Your task to perform on an android device: turn off wifi Image 0: 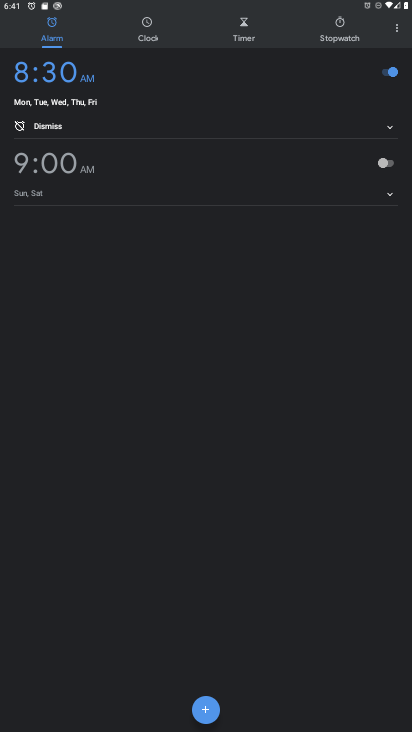
Step 0: press home button
Your task to perform on an android device: turn off wifi Image 1: 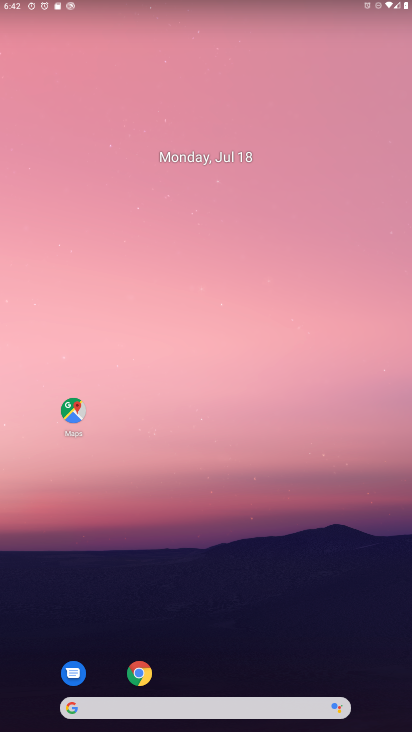
Step 1: drag from (230, 619) to (217, 241)
Your task to perform on an android device: turn off wifi Image 2: 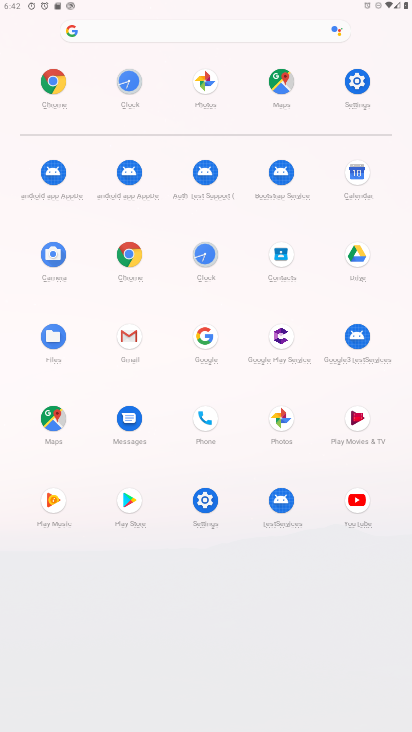
Step 2: click (207, 497)
Your task to perform on an android device: turn off wifi Image 3: 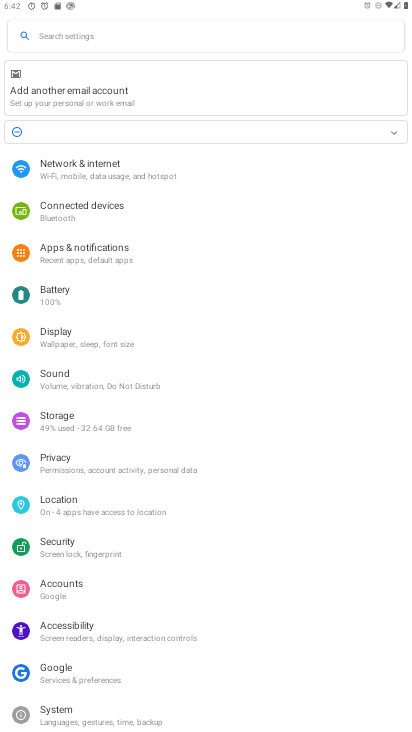
Step 3: click (103, 164)
Your task to perform on an android device: turn off wifi Image 4: 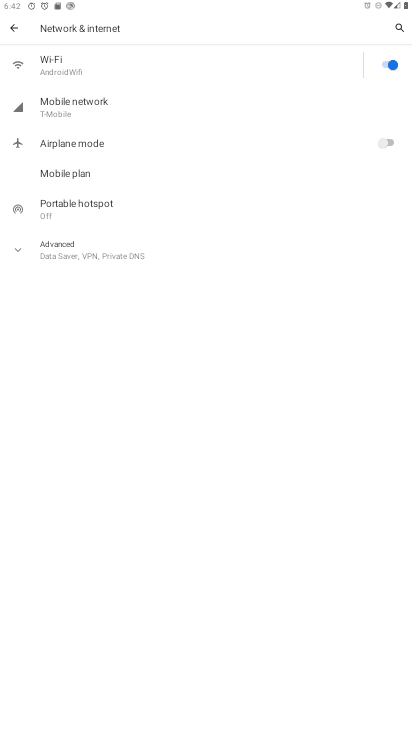
Step 4: click (388, 65)
Your task to perform on an android device: turn off wifi Image 5: 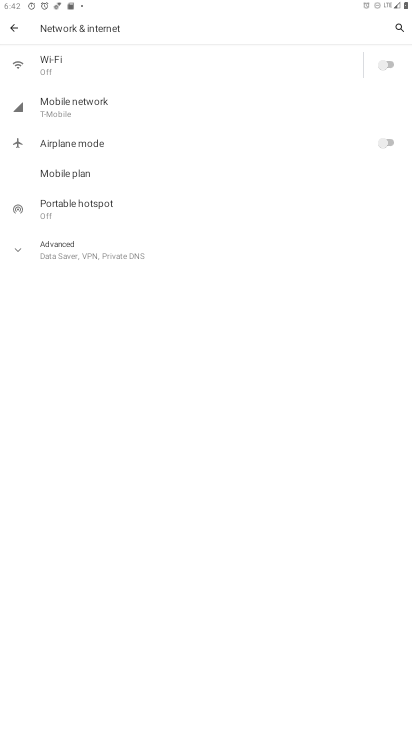
Step 5: task complete